Your task to perform on an android device: When is my next meeting? Image 0: 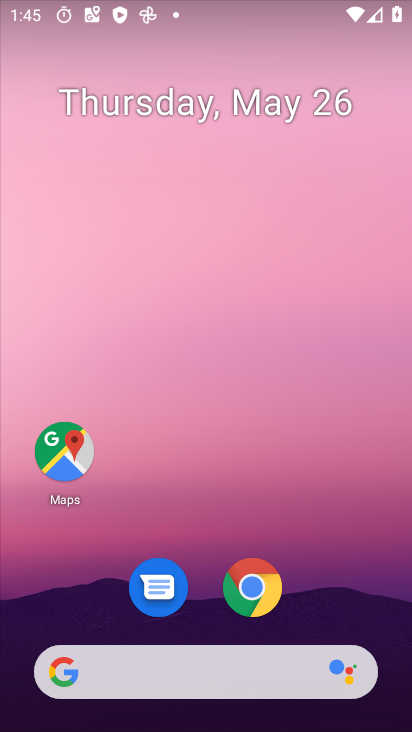
Step 0: drag from (377, 599) to (384, 254)
Your task to perform on an android device: When is my next meeting? Image 1: 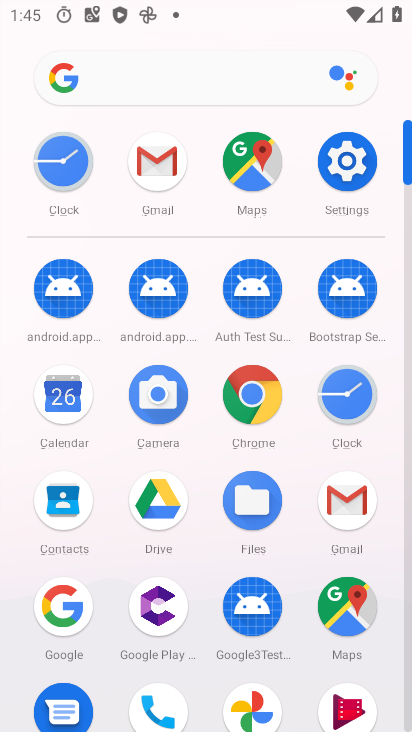
Step 1: click (60, 409)
Your task to perform on an android device: When is my next meeting? Image 2: 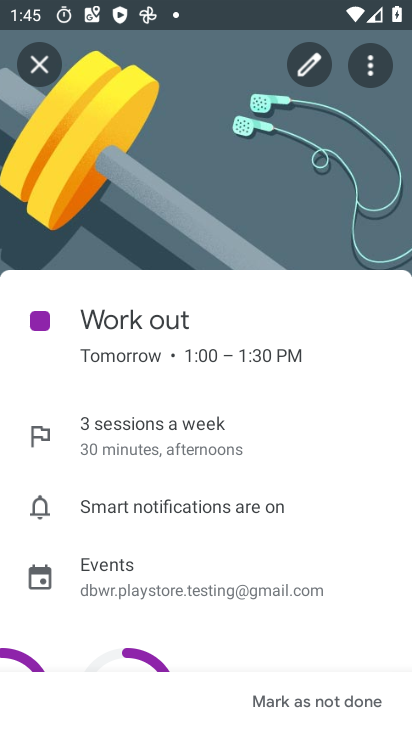
Step 2: task complete